Your task to perform on an android device: toggle translation in the chrome app Image 0: 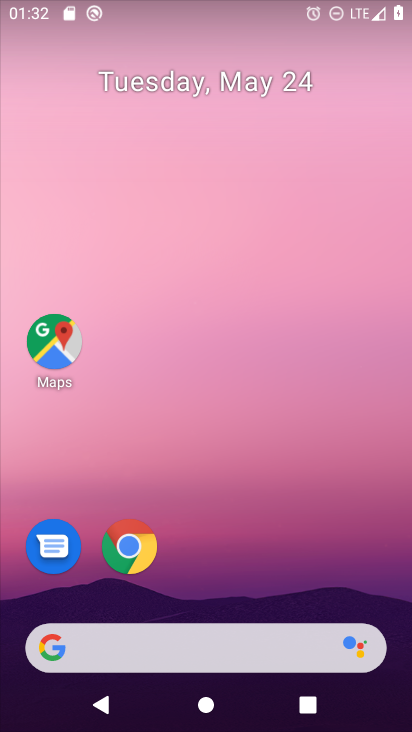
Step 0: drag from (316, 627) to (345, 90)
Your task to perform on an android device: toggle translation in the chrome app Image 1: 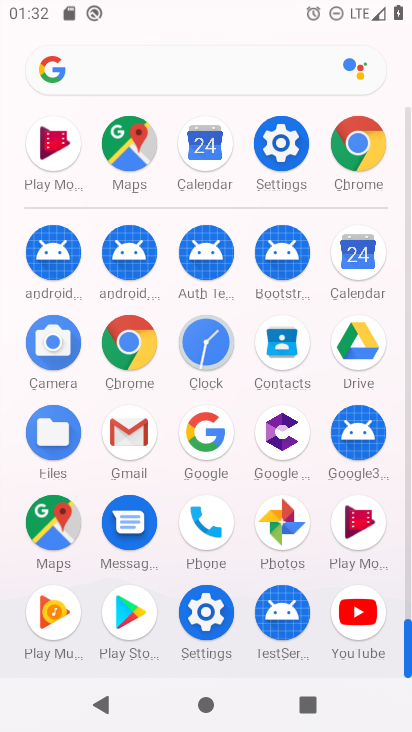
Step 1: click (136, 338)
Your task to perform on an android device: toggle translation in the chrome app Image 2: 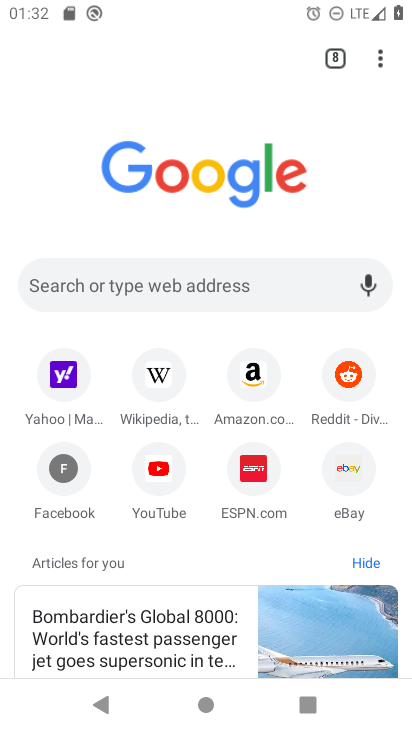
Step 2: drag from (380, 50) to (223, 497)
Your task to perform on an android device: toggle translation in the chrome app Image 3: 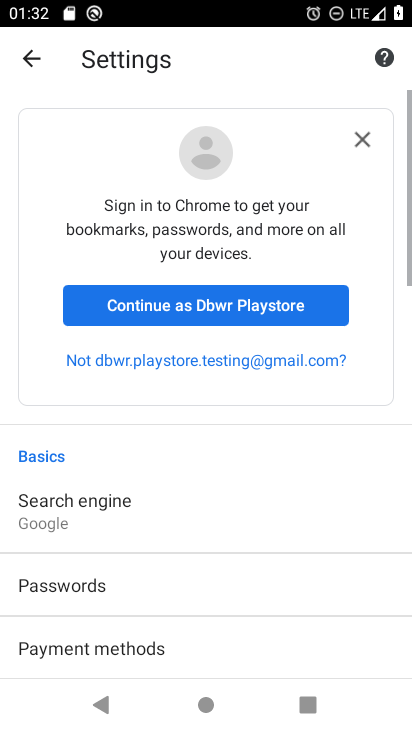
Step 3: drag from (208, 581) to (309, 58)
Your task to perform on an android device: toggle translation in the chrome app Image 4: 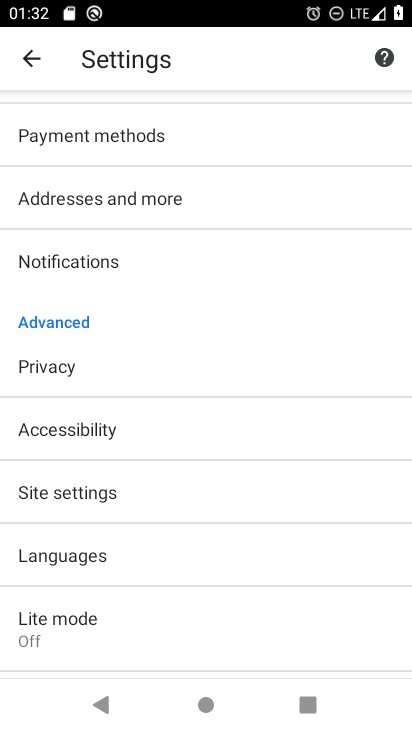
Step 4: click (76, 546)
Your task to perform on an android device: toggle translation in the chrome app Image 5: 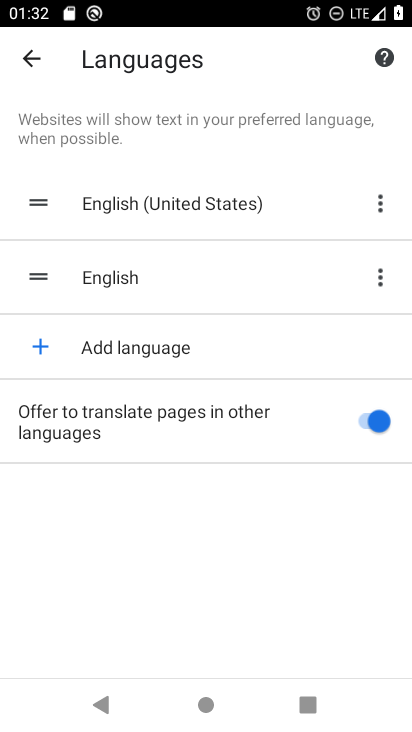
Step 5: click (377, 414)
Your task to perform on an android device: toggle translation in the chrome app Image 6: 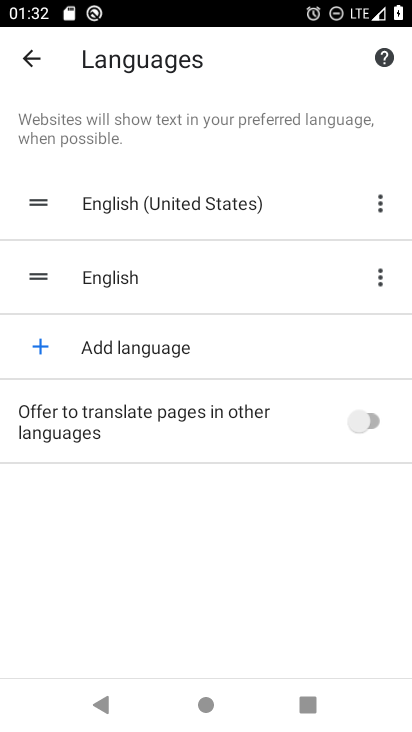
Step 6: task complete